Your task to perform on an android device: see sites visited before in the chrome app Image 0: 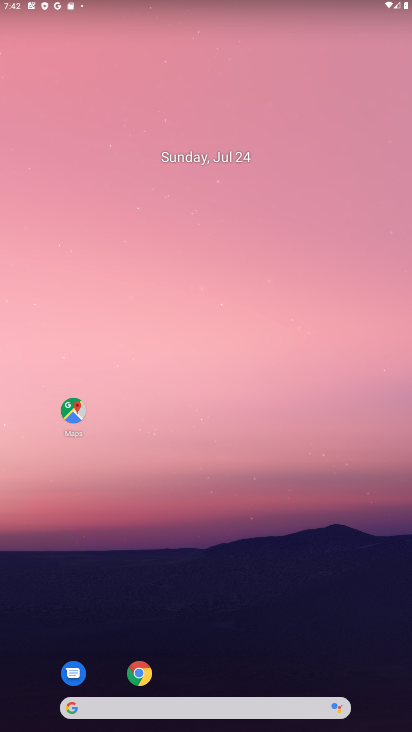
Step 0: click (135, 676)
Your task to perform on an android device: see sites visited before in the chrome app Image 1: 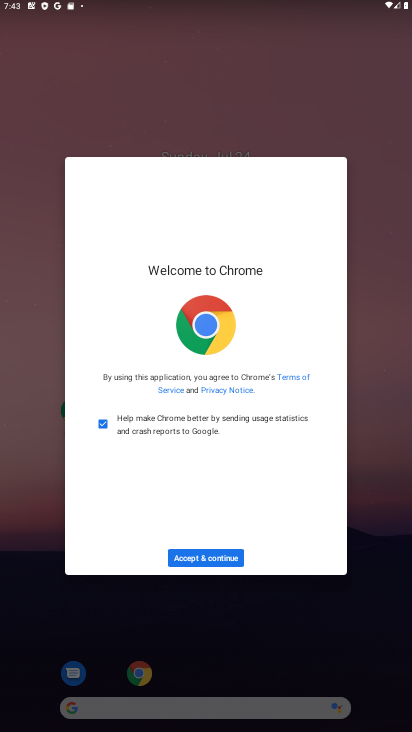
Step 1: click (182, 553)
Your task to perform on an android device: see sites visited before in the chrome app Image 2: 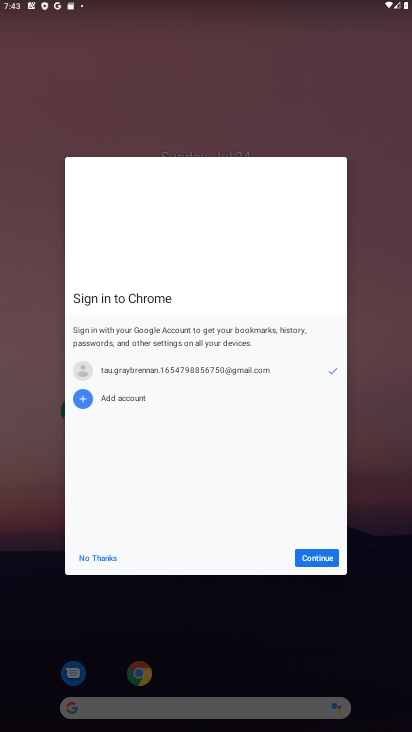
Step 2: click (325, 556)
Your task to perform on an android device: see sites visited before in the chrome app Image 3: 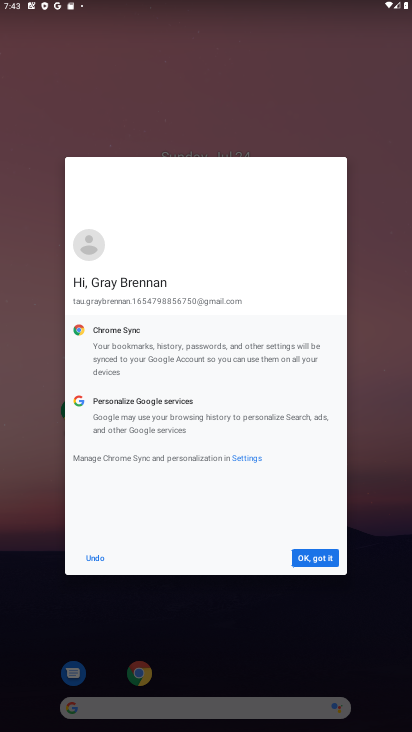
Step 3: click (326, 551)
Your task to perform on an android device: see sites visited before in the chrome app Image 4: 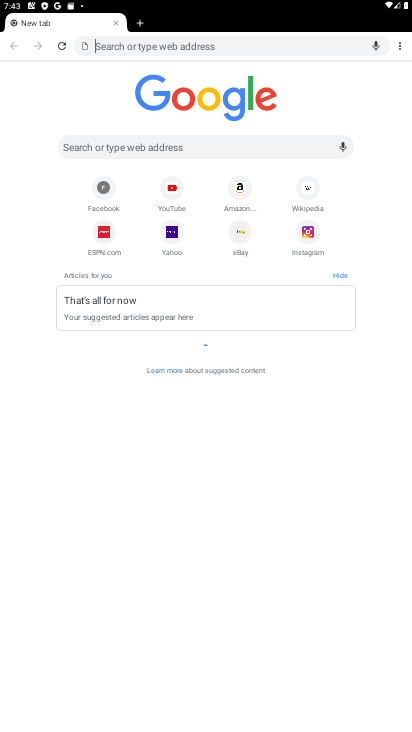
Step 4: click (397, 39)
Your task to perform on an android device: see sites visited before in the chrome app Image 5: 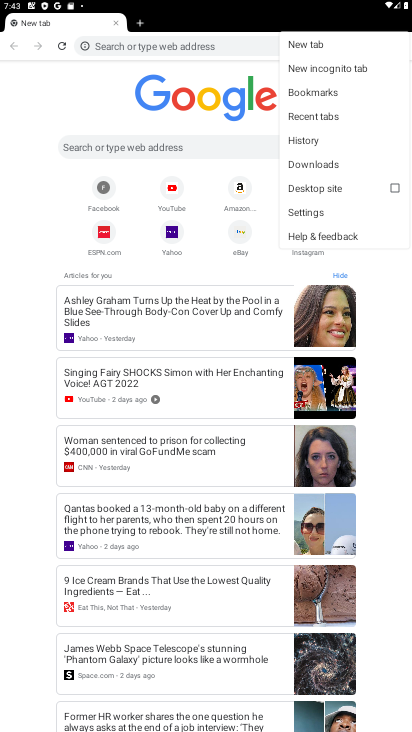
Step 5: click (304, 206)
Your task to perform on an android device: see sites visited before in the chrome app Image 6: 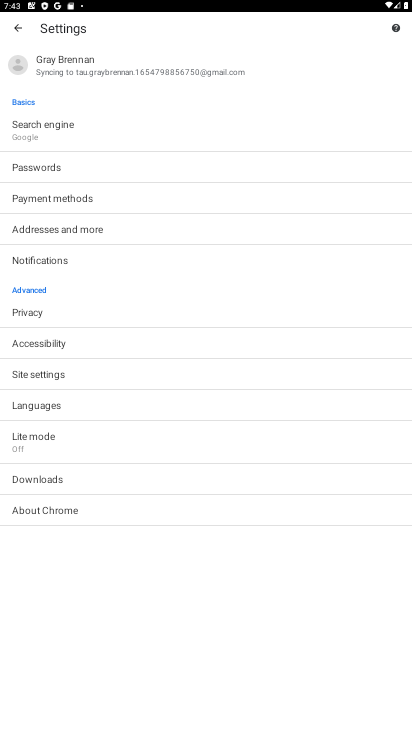
Step 6: click (31, 371)
Your task to perform on an android device: see sites visited before in the chrome app Image 7: 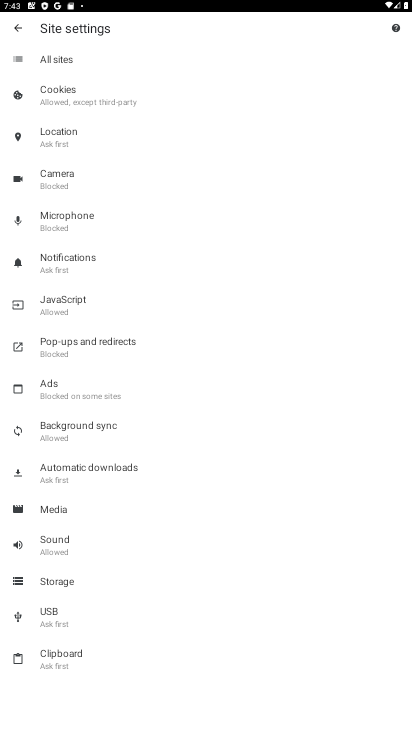
Step 7: task complete